Your task to perform on an android device: Open Chrome and go to the settings page Image 0: 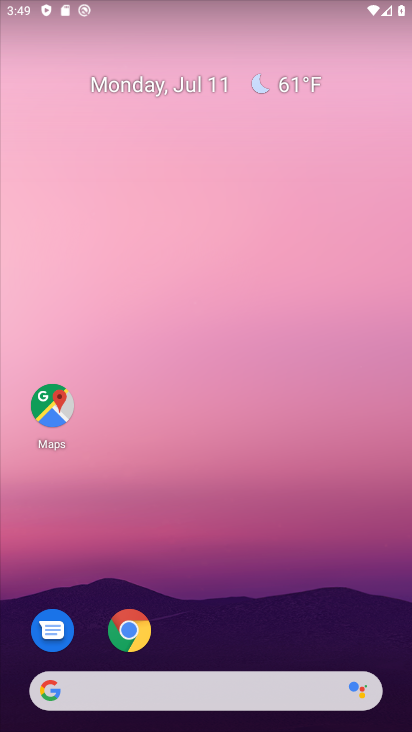
Step 0: drag from (225, 574) to (279, 222)
Your task to perform on an android device: Open Chrome and go to the settings page Image 1: 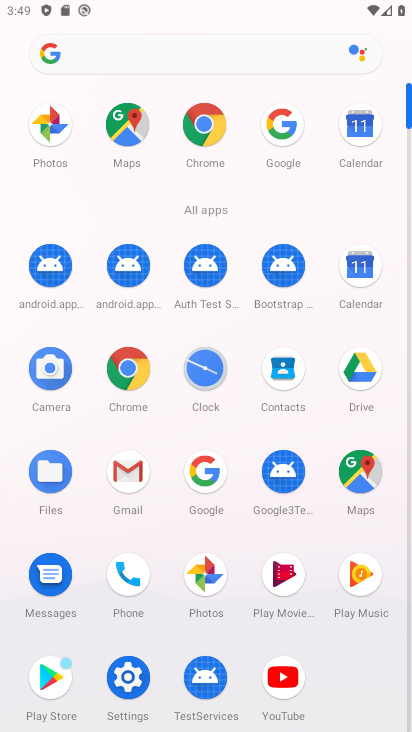
Step 1: click (133, 393)
Your task to perform on an android device: Open Chrome and go to the settings page Image 2: 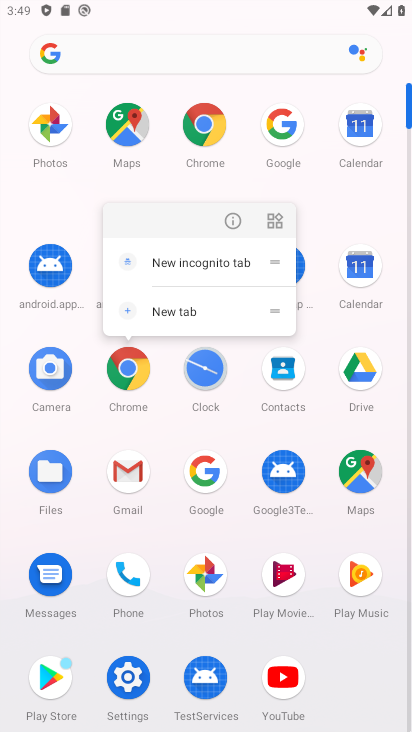
Step 2: click (138, 384)
Your task to perform on an android device: Open Chrome and go to the settings page Image 3: 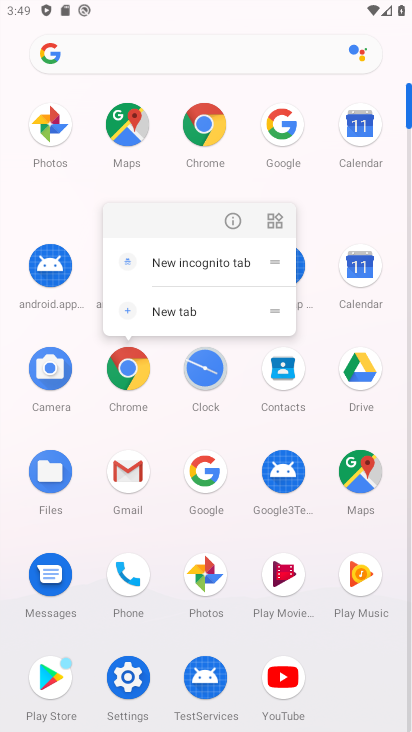
Step 3: click (135, 375)
Your task to perform on an android device: Open Chrome and go to the settings page Image 4: 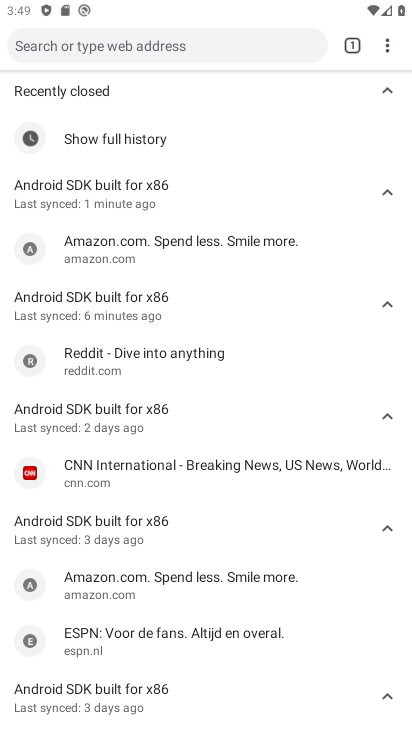
Step 4: task complete